Your task to perform on an android device: read, delete, or share a saved page in the chrome app Image 0: 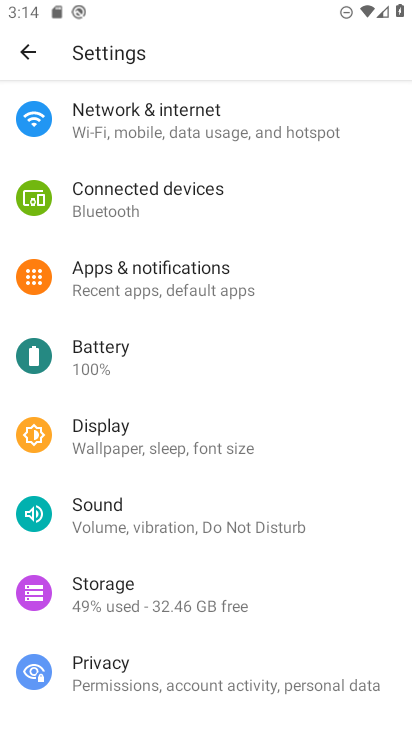
Step 0: press home button
Your task to perform on an android device: read, delete, or share a saved page in the chrome app Image 1: 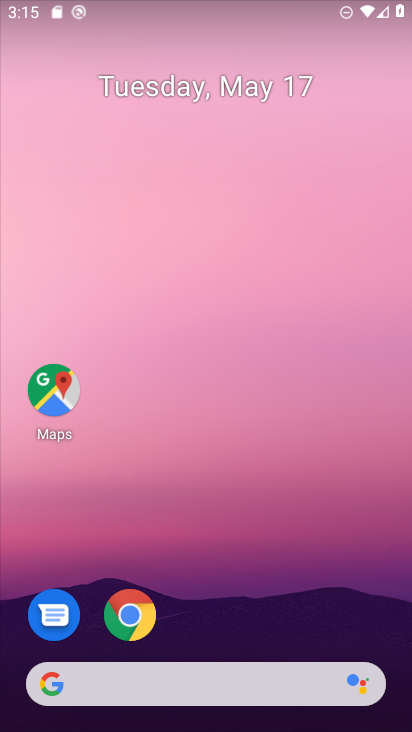
Step 1: click (132, 617)
Your task to perform on an android device: read, delete, or share a saved page in the chrome app Image 2: 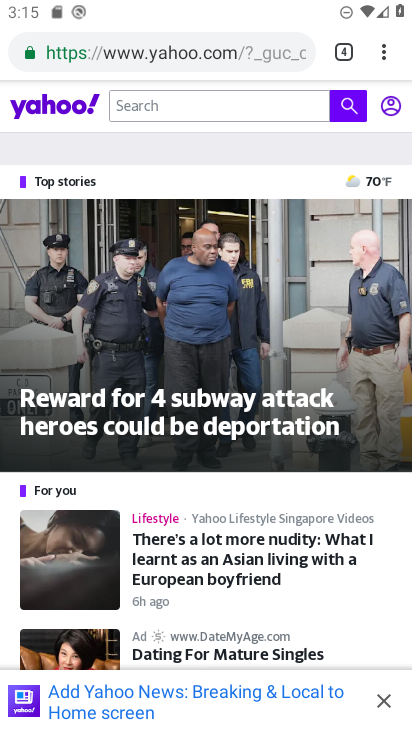
Step 2: click (385, 56)
Your task to perform on an android device: read, delete, or share a saved page in the chrome app Image 3: 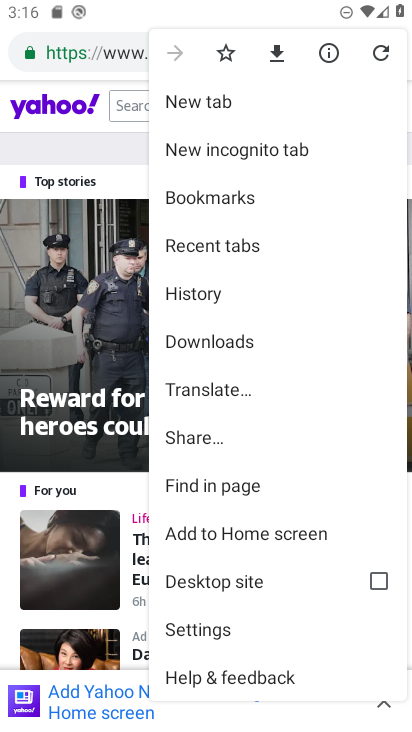
Step 3: click (209, 339)
Your task to perform on an android device: read, delete, or share a saved page in the chrome app Image 4: 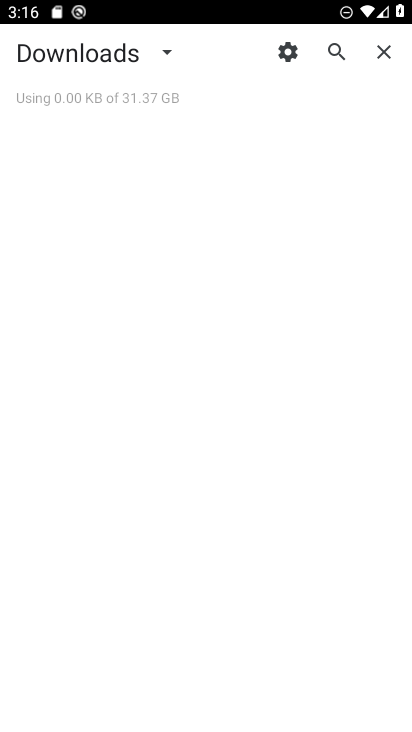
Step 4: click (163, 48)
Your task to perform on an android device: read, delete, or share a saved page in the chrome app Image 5: 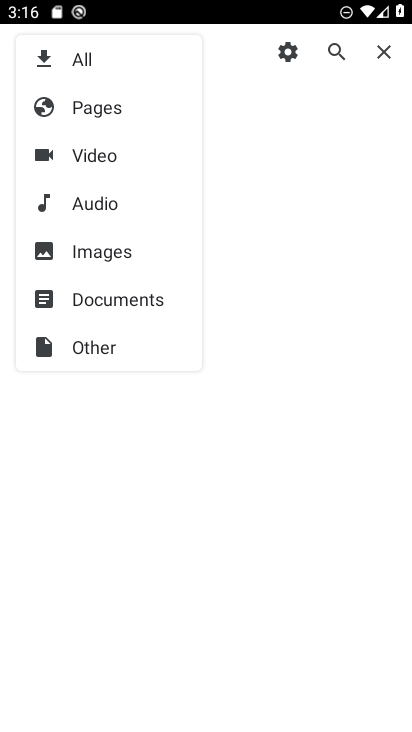
Step 5: click (91, 108)
Your task to perform on an android device: read, delete, or share a saved page in the chrome app Image 6: 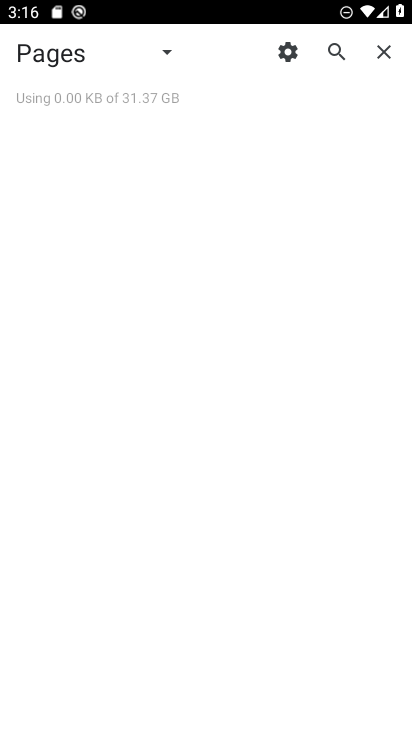
Step 6: task complete